Your task to perform on an android device: Open Amazon Image 0: 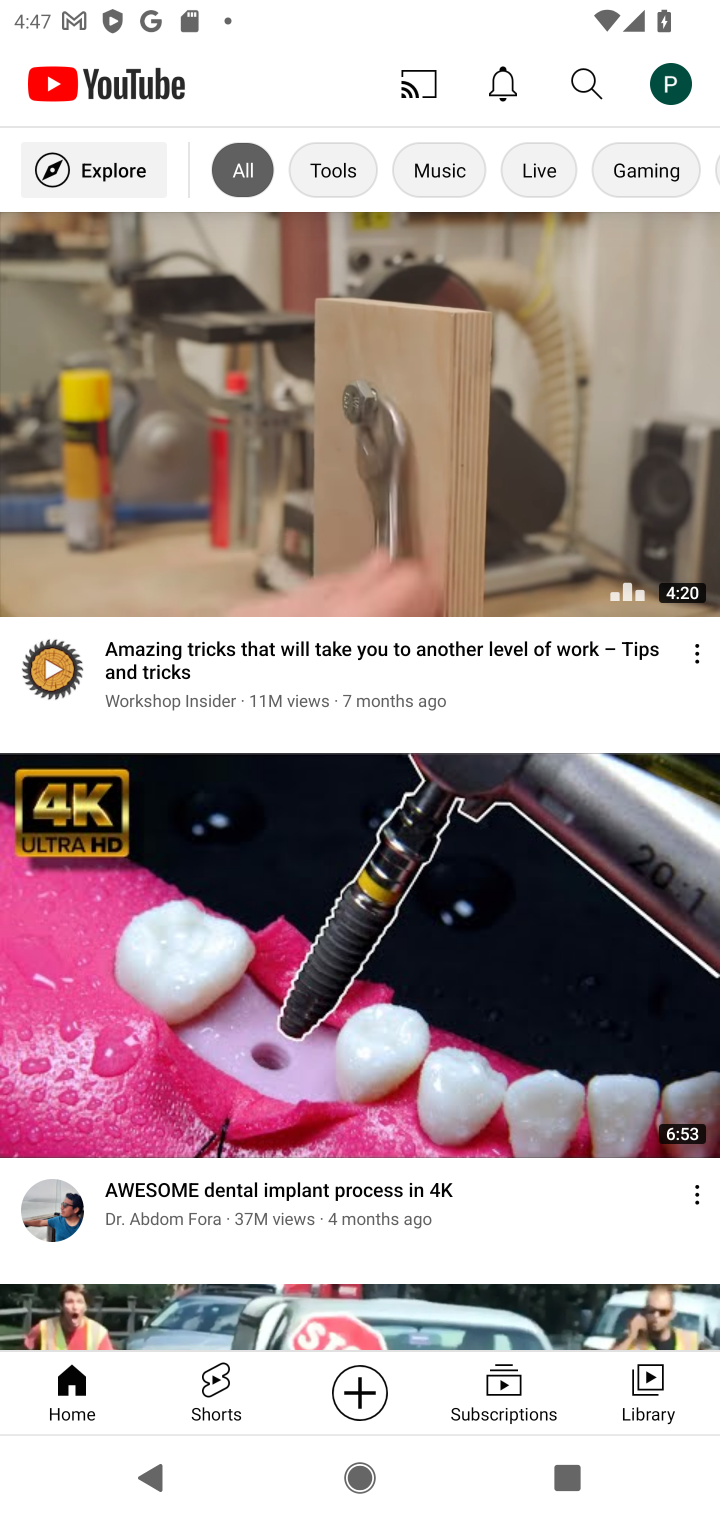
Step 0: press home button
Your task to perform on an android device: Open Amazon Image 1: 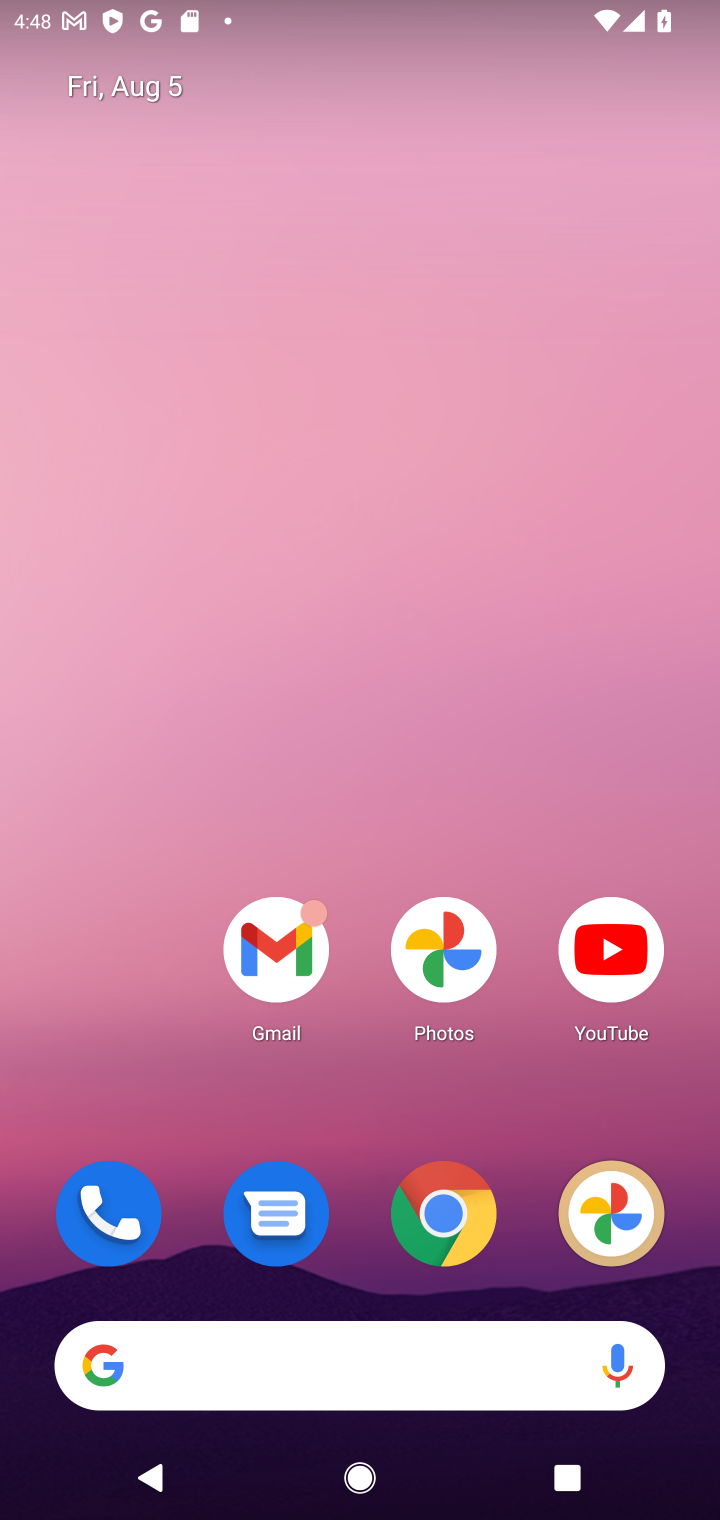
Step 1: click (464, 1190)
Your task to perform on an android device: Open Amazon Image 2: 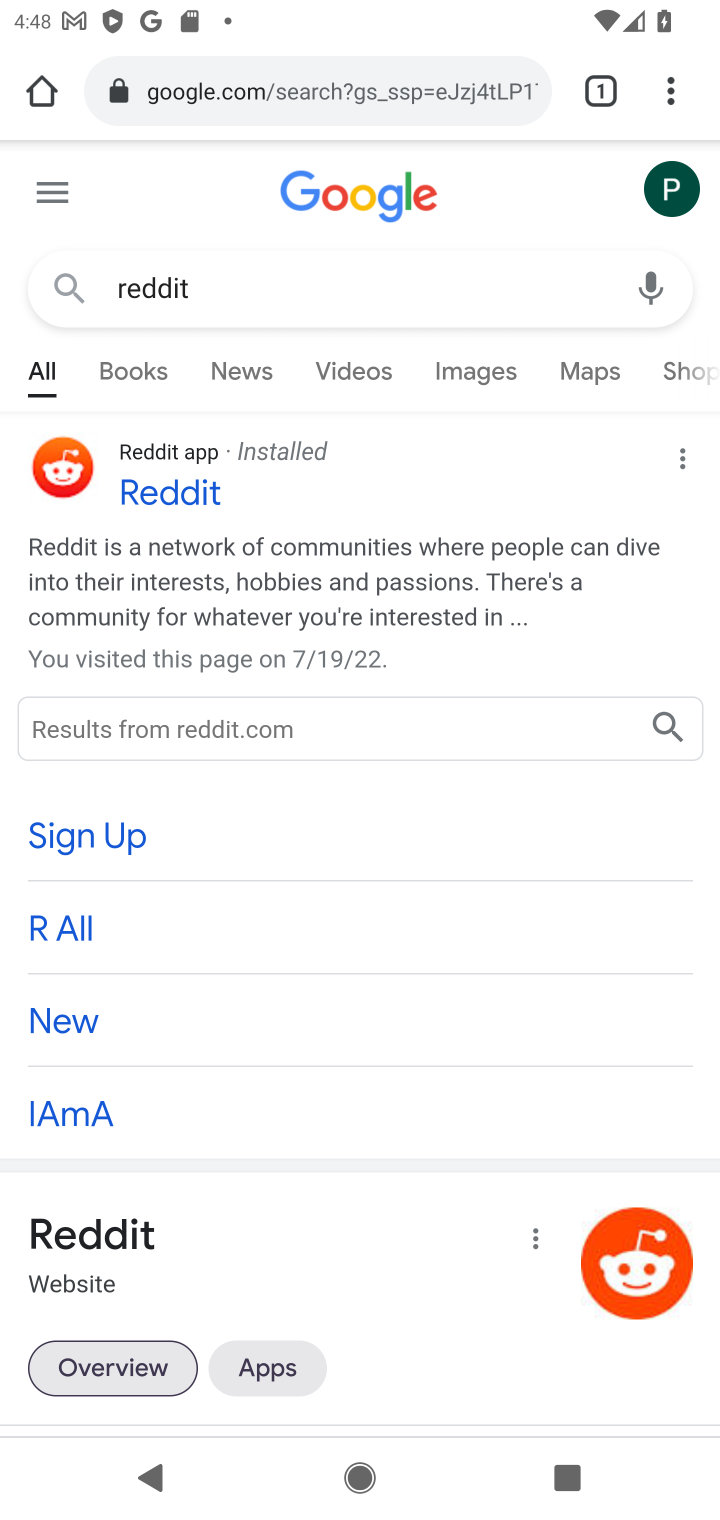
Step 2: click (251, 68)
Your task to perform on an android device: Open Amazon Image 3: 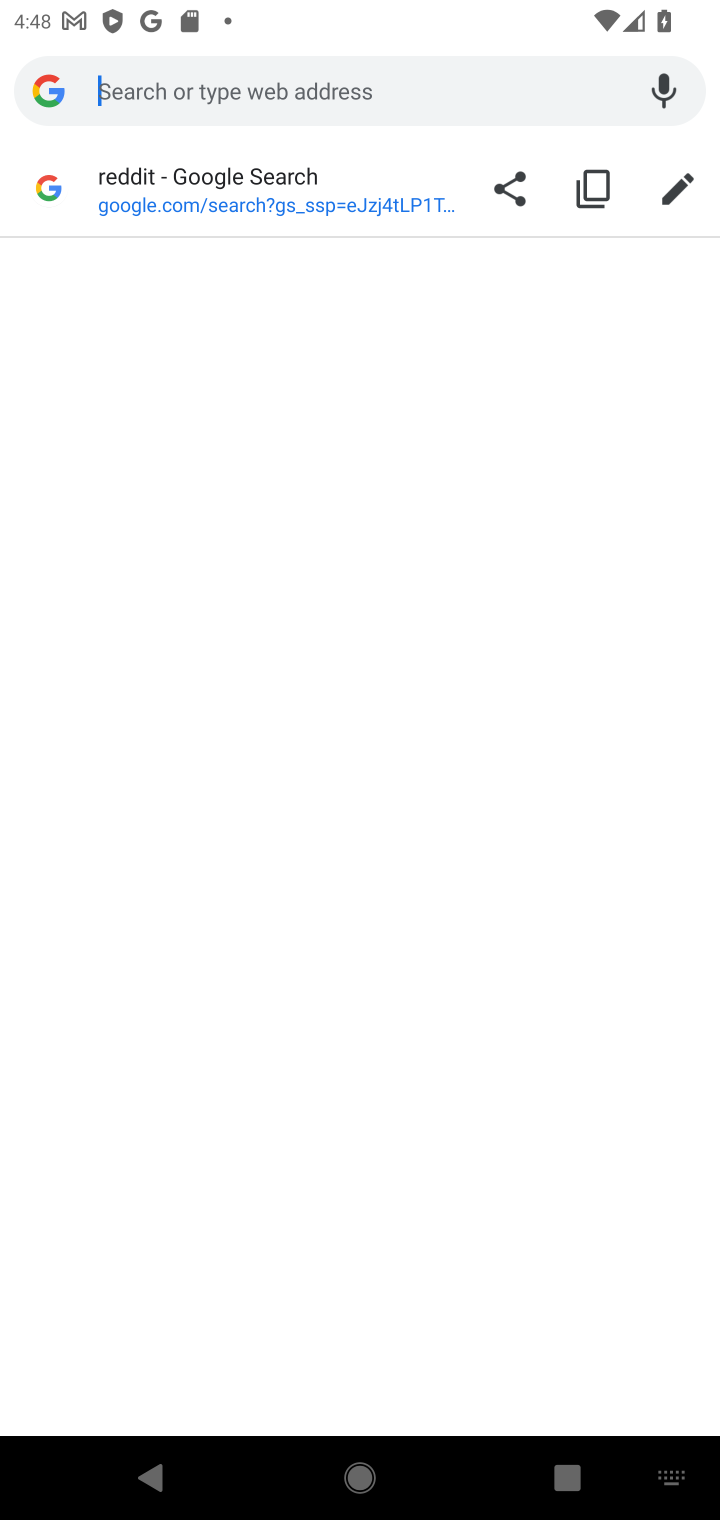
Step 3: type "amazon"
Your task to perform on an android device: Open Amazon Image 4: 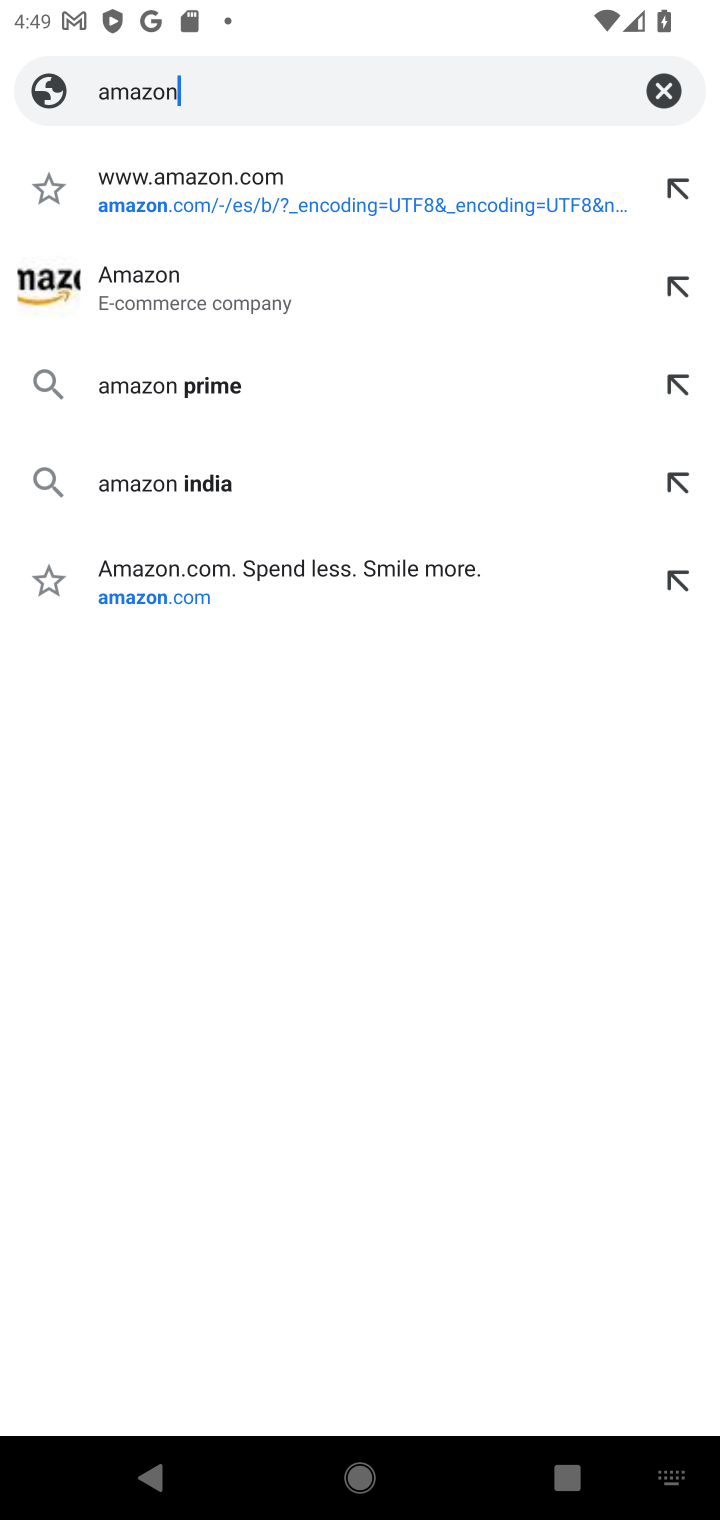
Step 4: click (299, 265)
Your task to perform on an android device: Open Amazon Image 5: 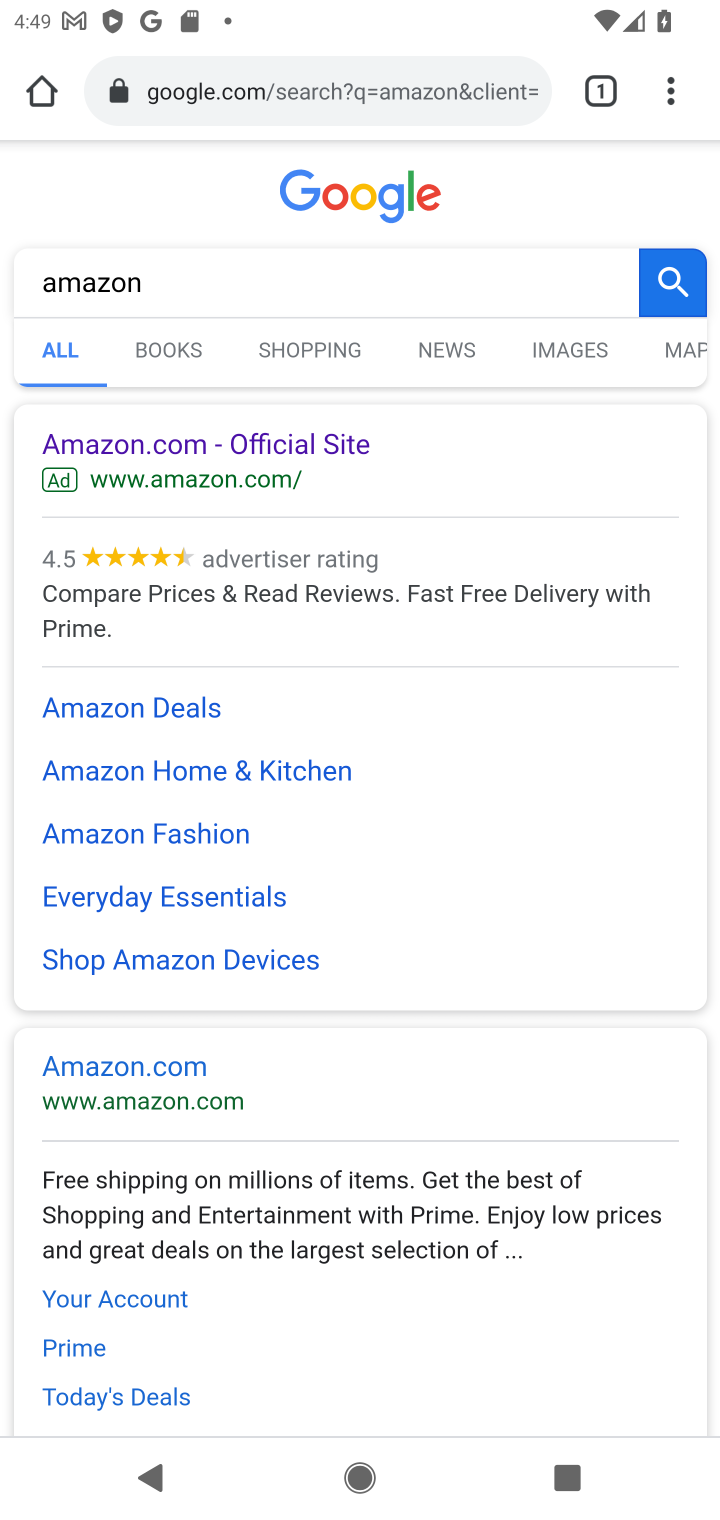
Step 5: task complete